Your task to perform on an android device: Go to Wikipedia Image 0: 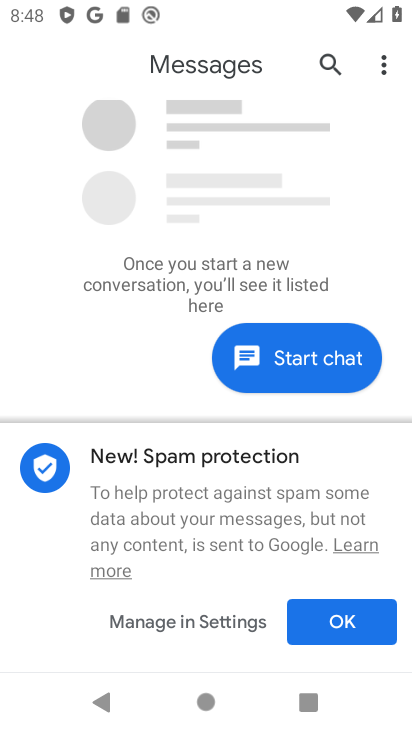
Step 0: press home button
Your task to perform on an android device: Go to Wikipedia Image 1: 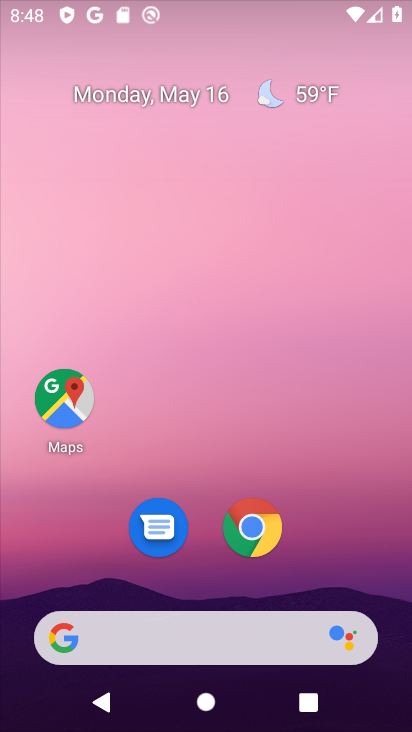
Step 1: drag from (327, 493) to (351, 168)
Your task to perform on an android device: Go to Wikipedia Image 2: 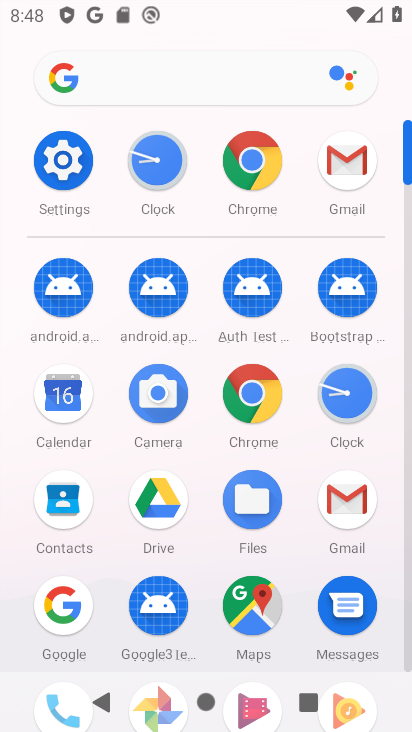
Step 2: click (253, 391)
Your task to perform on an android device: Go to Wikipedia Image 3: 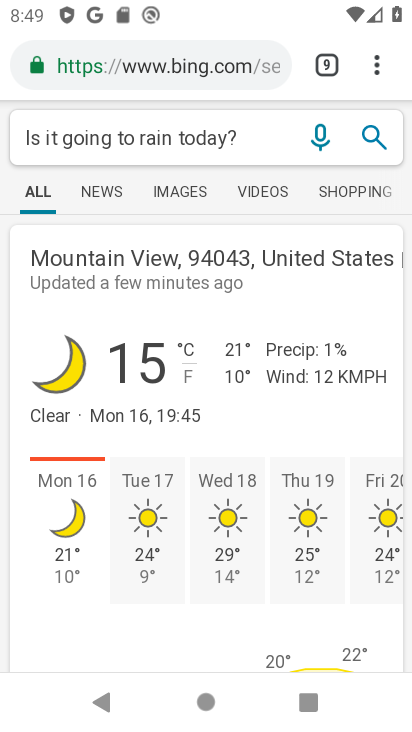
Step 3: click (367, 60)
Your task to perform on an android device: Go to Wikipedia Image 4: 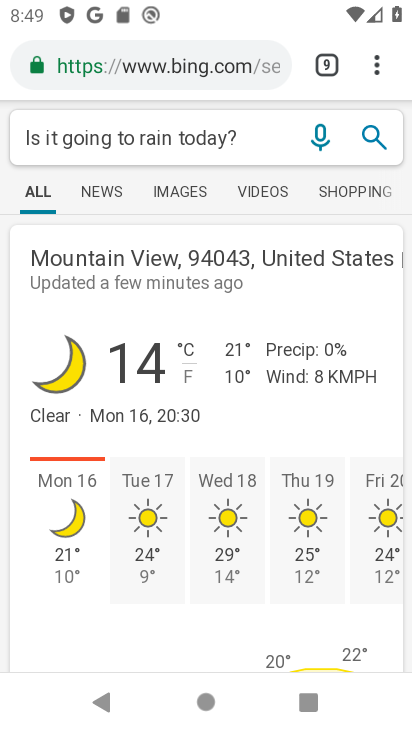
Step 4: click (377, 70)
Your task to perform on an android device: Go to Wikipedia Image 5: 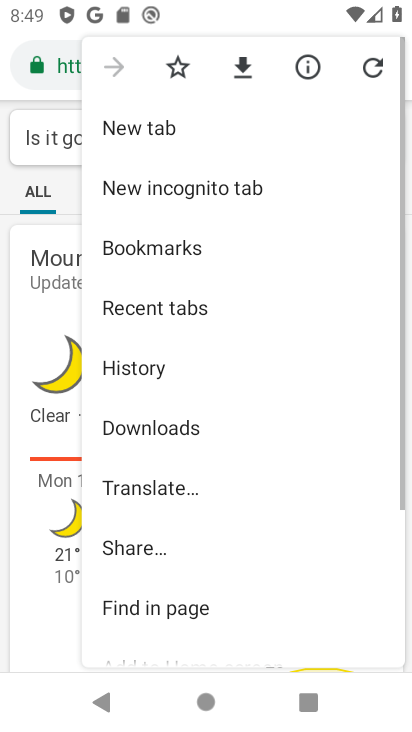
Step 5: click (136, 124)
Your task to perform on an android device: Go to Wikipedia Image 6: 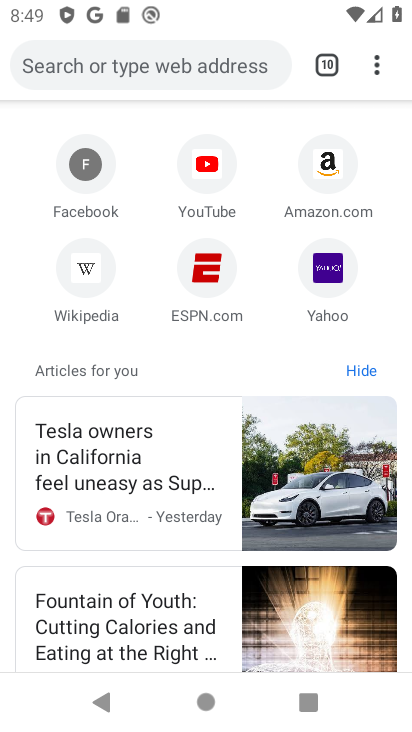
Step 6: click (75, 254)
Your task to perform on an android device: Go to Wikipedia Image 7: 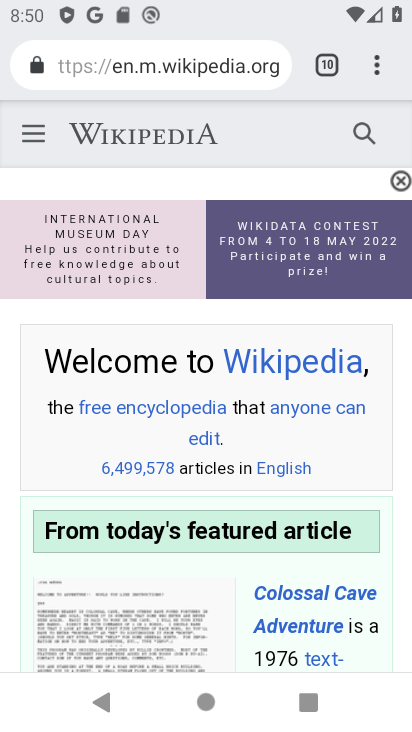
Step 7: task complete